Your task to perform on an android device: find photos in the google photos app Image 0: 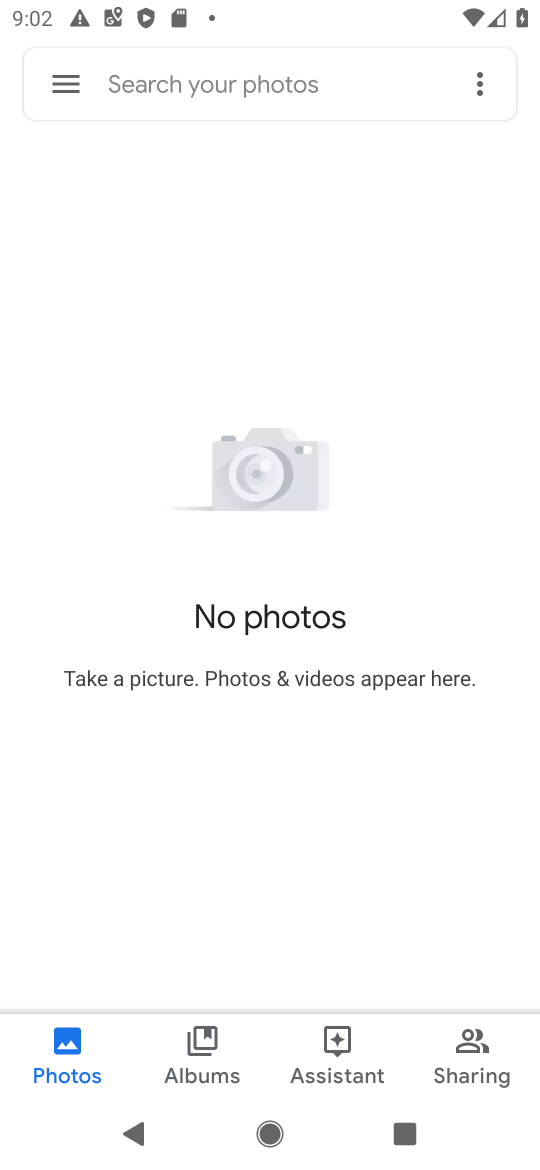
Step 0: press home button
Your task to perform on an android device: find photos in the google photos app Image 1: 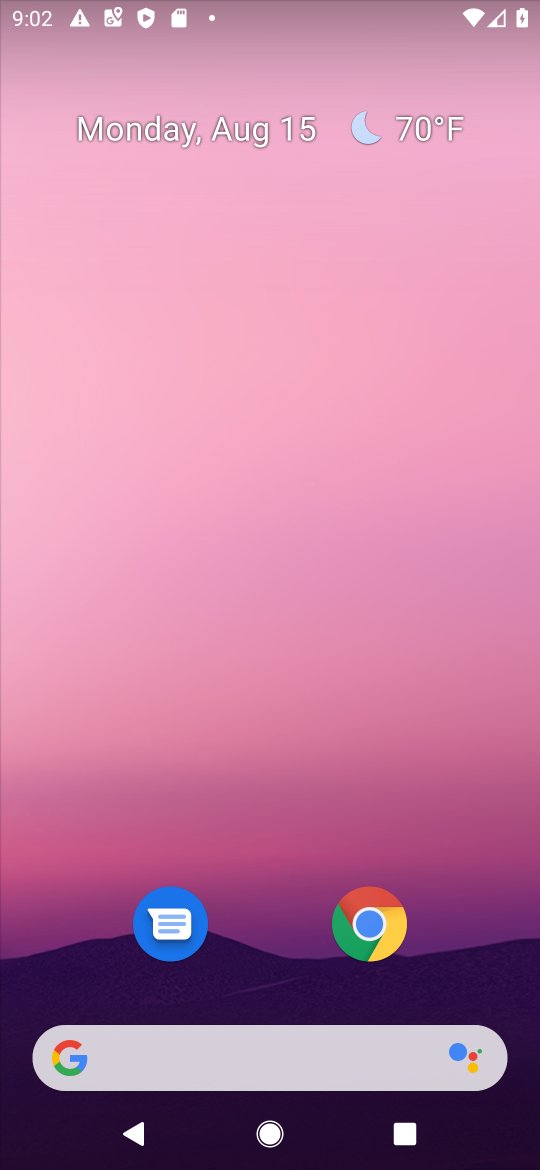
Step 1: drag from (507, 996) to (392, 153)
Your task to perform on an android device: find photos in the google photos app Image 2: 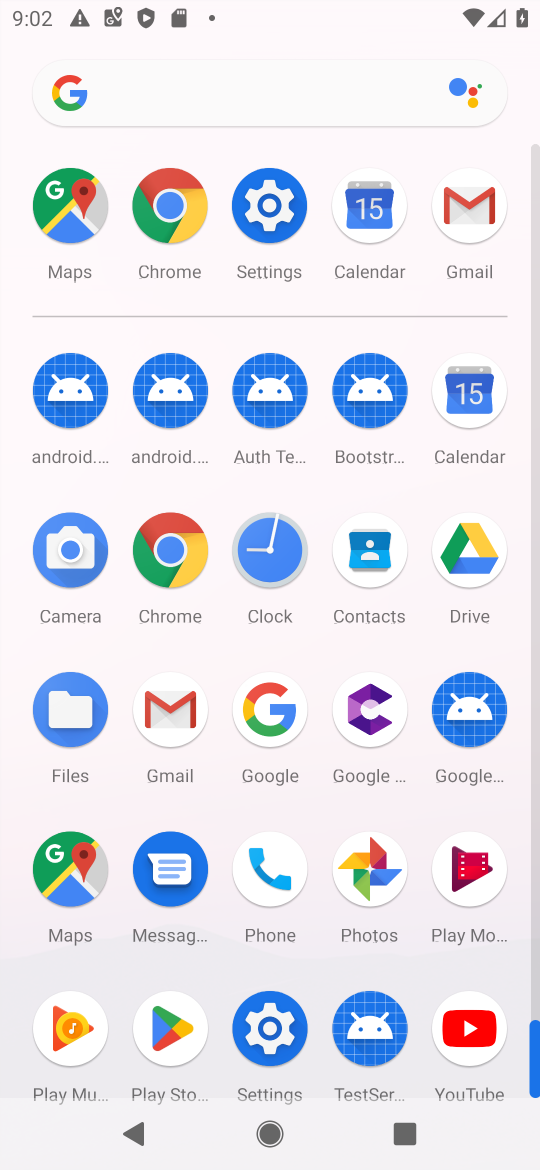
Step 2: click (374, 865)
Your task to perform on an android device: find photos in the google photos app Image 3: 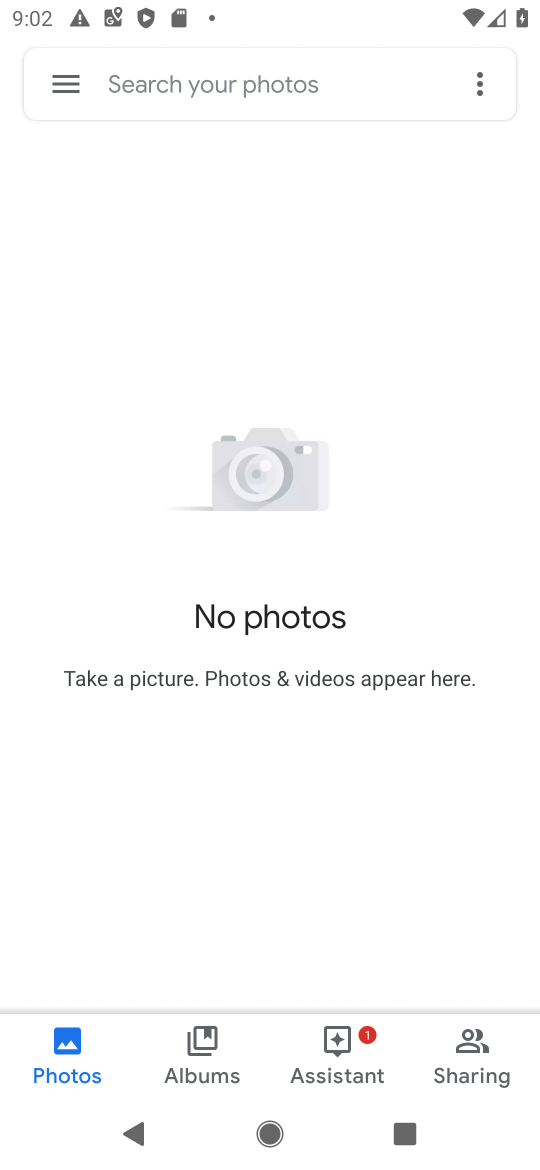
Step 3: task complete